Your task to perform on an android device: Open privacy settings Image 0: 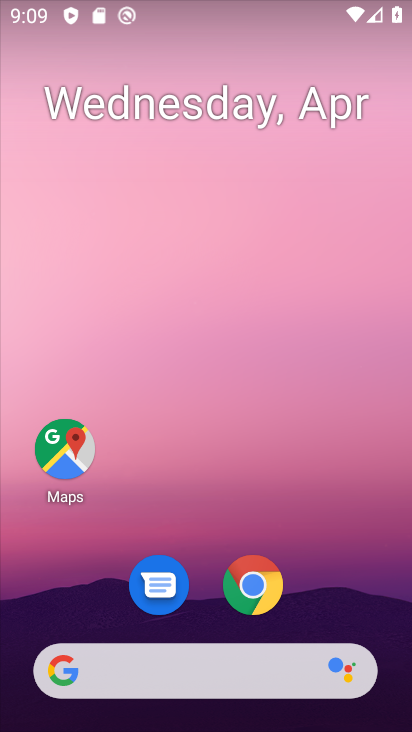
Step 0: drag from (320, 555) to (326, 101)
Your task to perform on an android device: Open privacy settings Image 1: 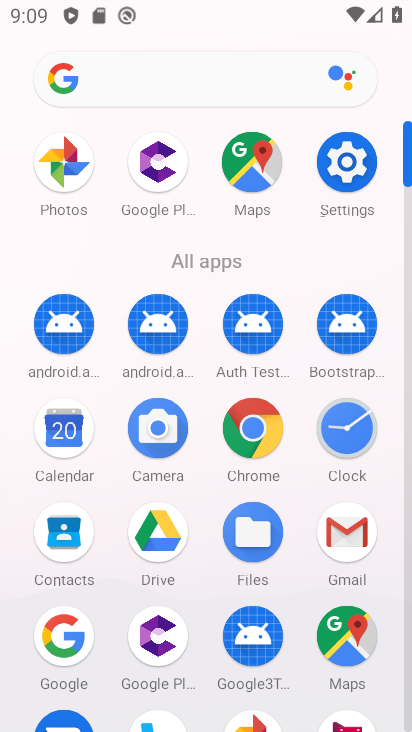
Step 1: click (251, 432)
Your task to perform on an android device: Open privacy settings Image 2: 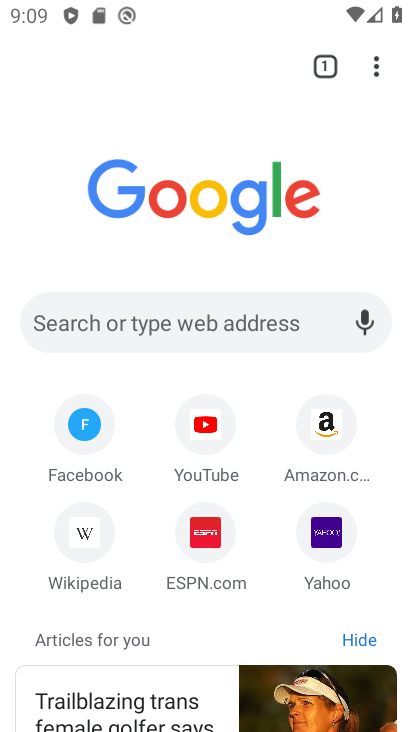
Step 2: click (375, 68)
Your task to perform on an android device: Open privacy settings Image 3: 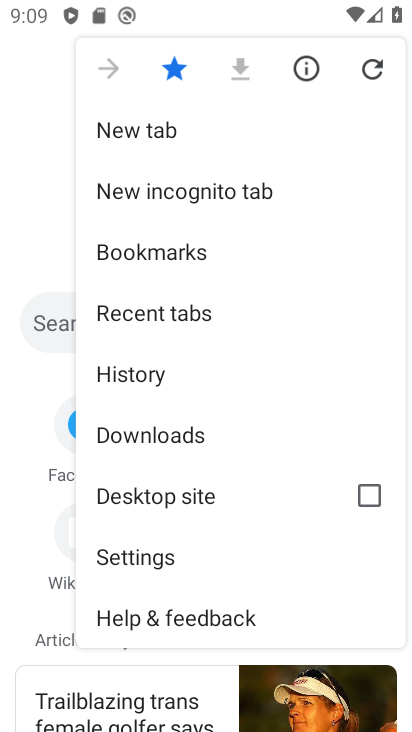
Step 3: click (235, 547)
Your task to perform on an android device: Open privacy settings Image 4: 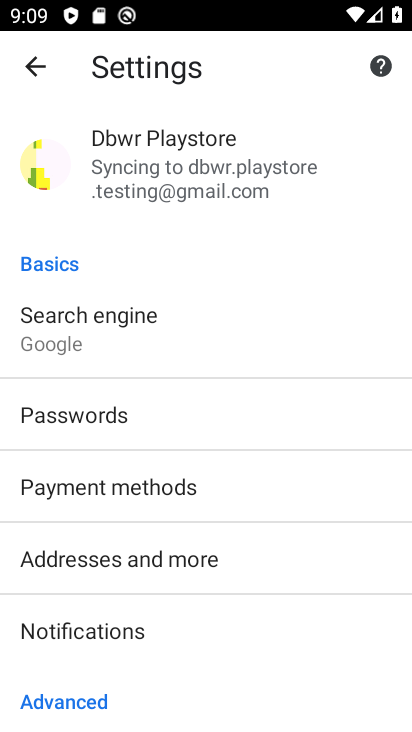
Step 4: drag from (271, 540) to (282, 295)
Your task to perform on an android device: Open privacy settings Image 5: 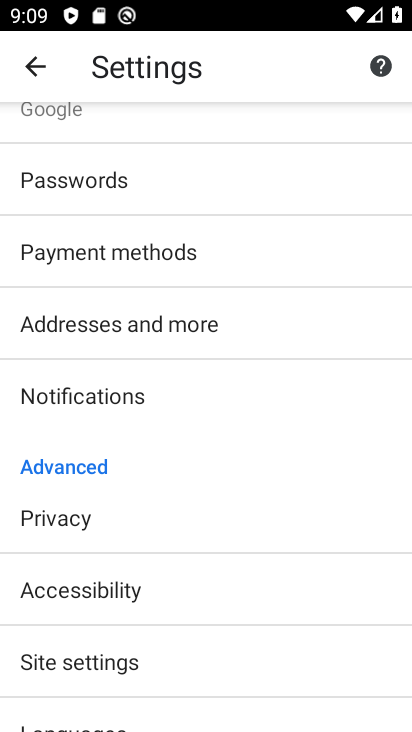
Step 5: click (164, 520)
Your task to perform on an android device: Open privacy settings Image 6: 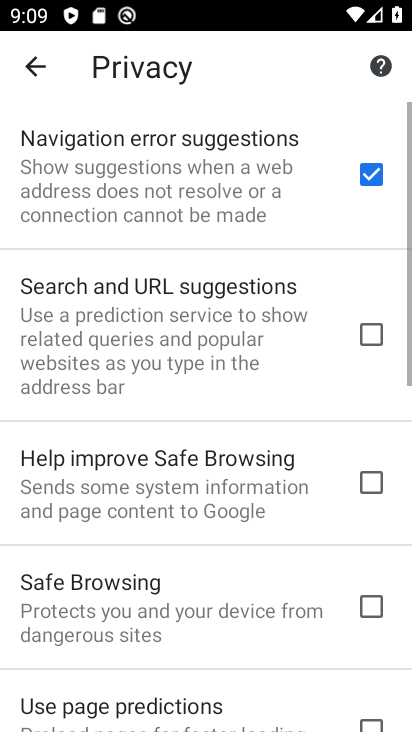
Step 6: task complete